Your task to perform on an android device: Open display settings Image 0: 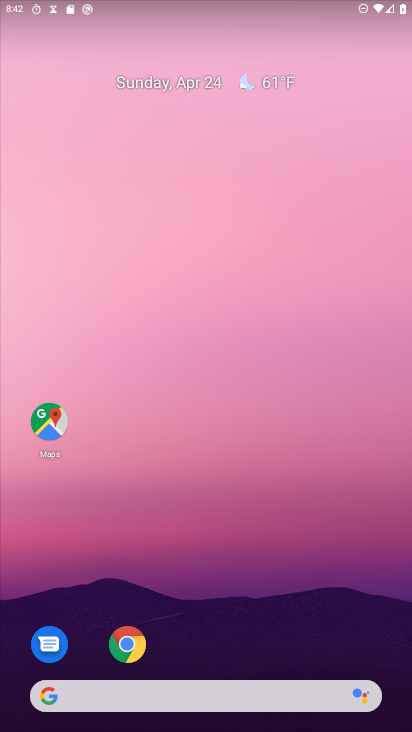
Step 0: drag from (196, 689) to (182, 63)
Your task to perform on an android device: Open display settings Image 1: 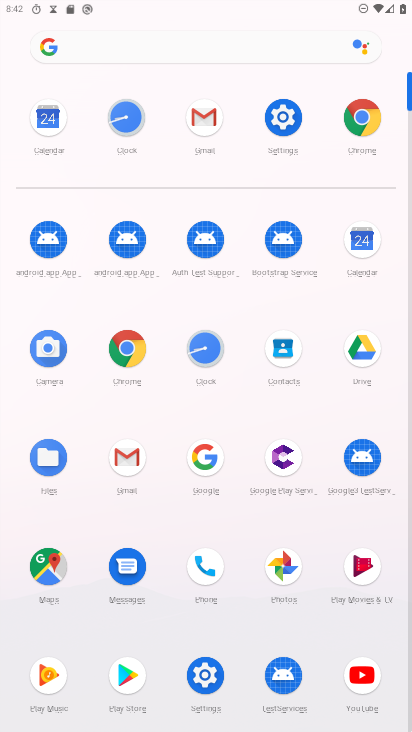
Step 1: click (208, 673)
Your task to perform on an android device: Open display settings Image 2: 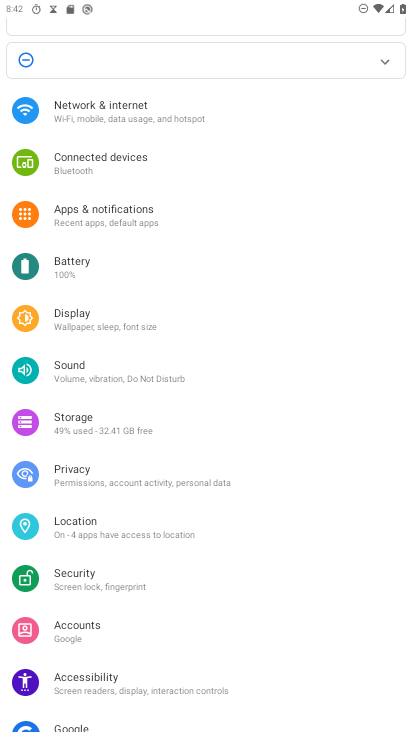
Step 2: click (56, 330)
Your task to perform on an android device: Open display settings Image 3: 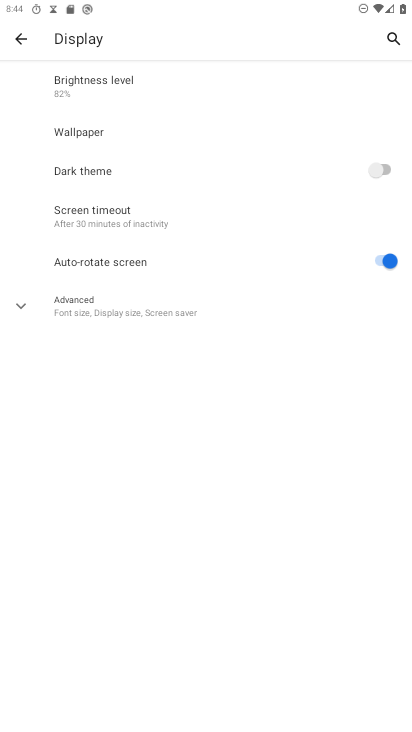
Step 3: task complete